Your task to perform on an android device: see creations saved in the google photos Image 0: 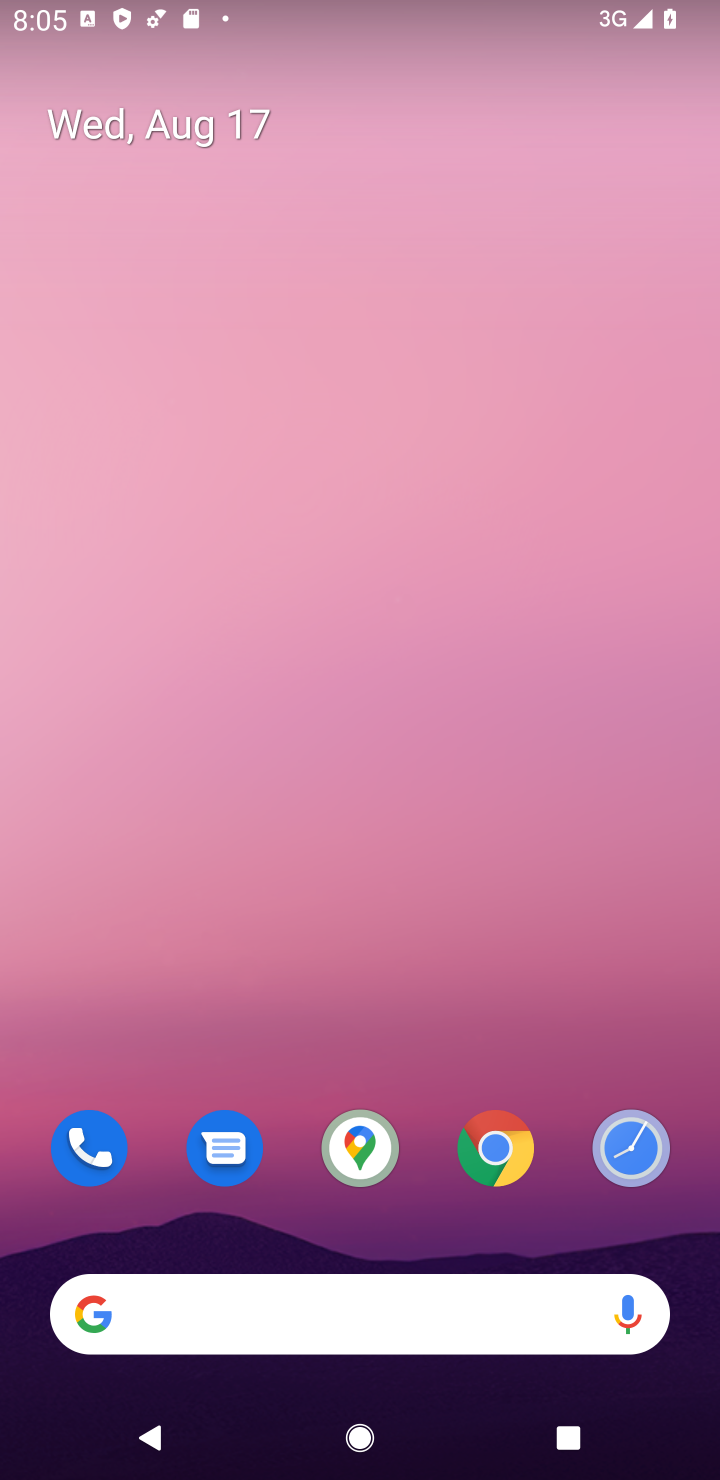
Step 0: drag from (550, 900) to (583, 332)
Your task to perform on an android device: see creations saved in the google photos Image 1: 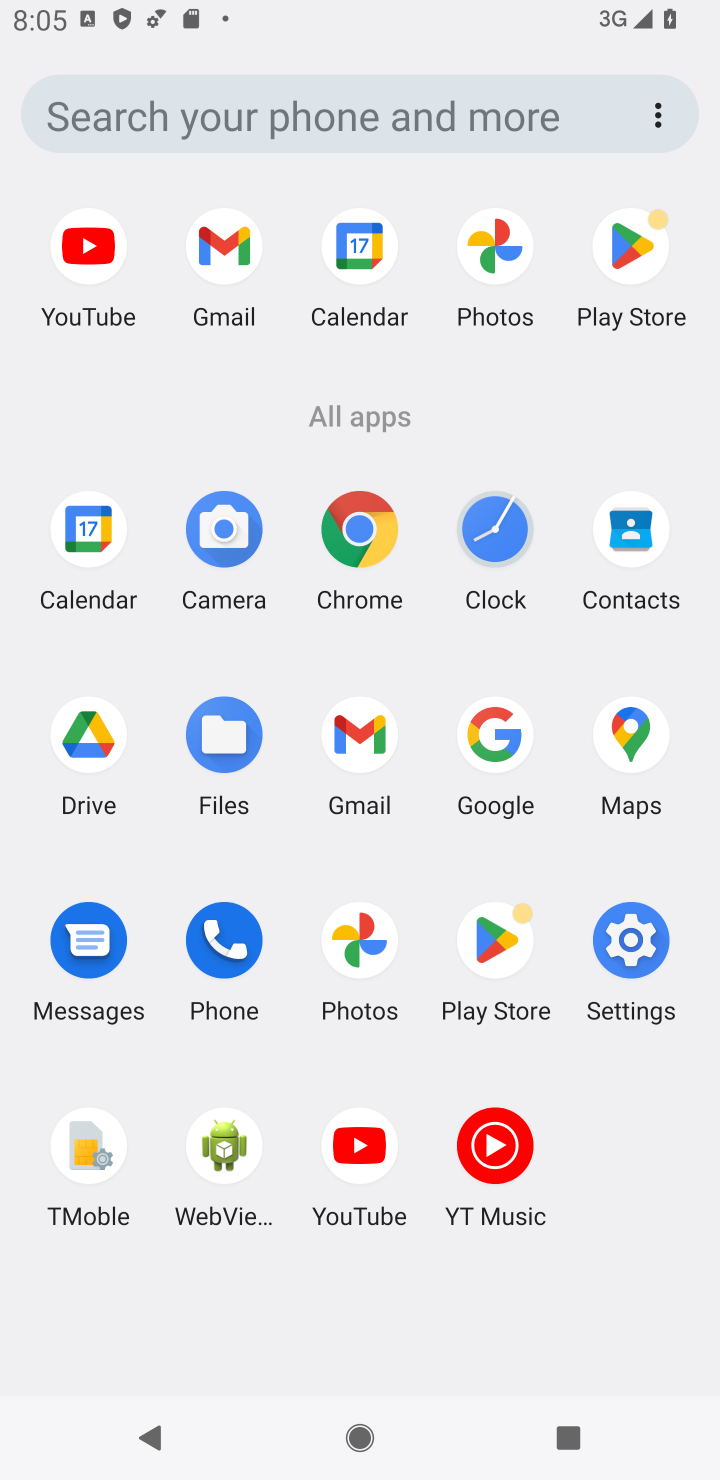
Step 1: click (369, 943)
Your task to perform on an android device: see creations saved in the google photos Image 2: 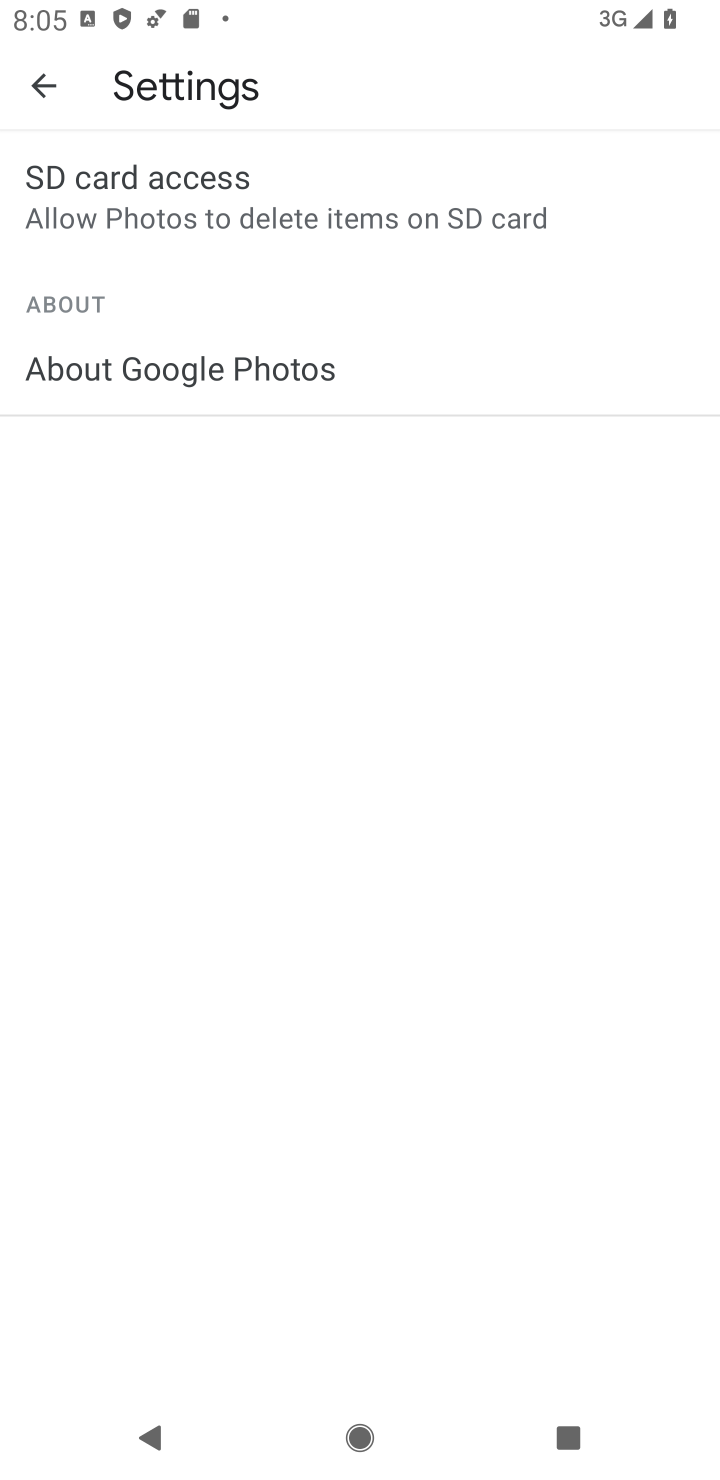
Step 2: task complete